Your task to perform on an android device: Open the map Image 0: 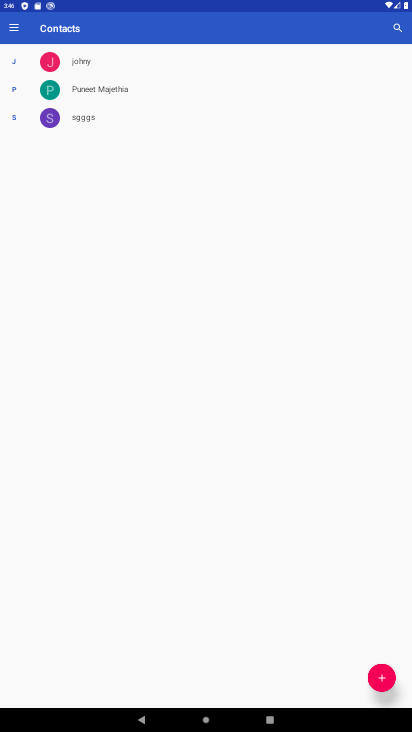
Step 0: drag from (21, 692) to (283, 197)
Your task to perform on an android device: Open the map Image 1: 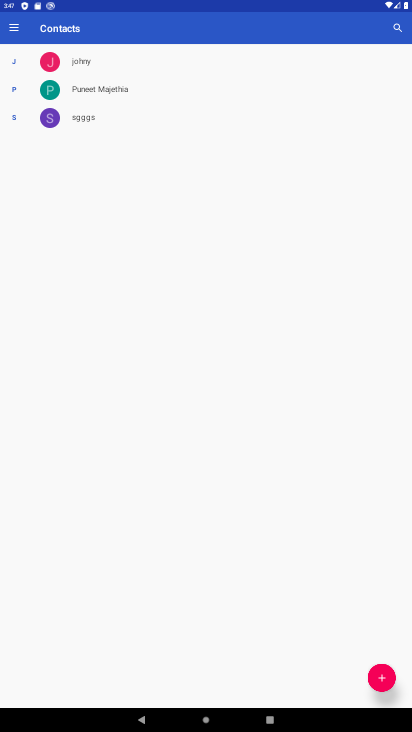
Step 1: press home button
Your task to perform on an android device: Open the map Image 2: 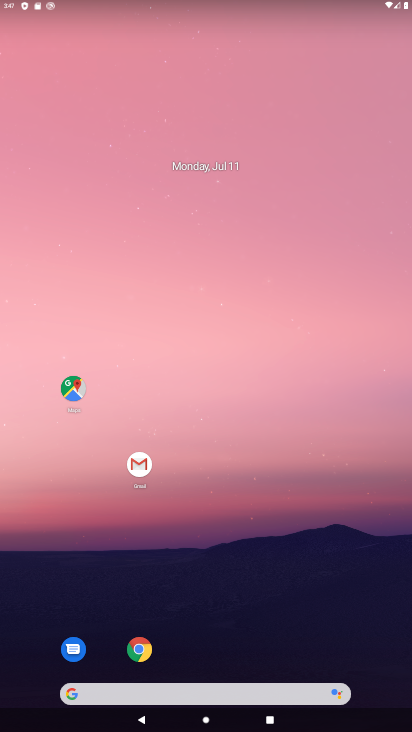
Step 2: click (75, 390)
Your task to perform on an android device: Open the map Image 3: 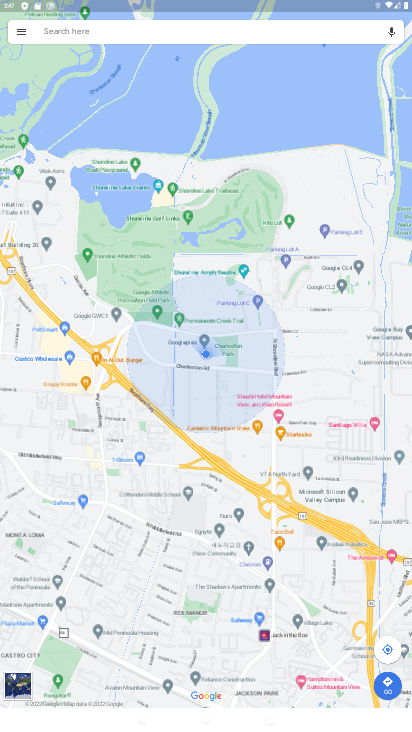
Step 3: task complete